Your task to perform on an android device: change keyboard looks Image 0: 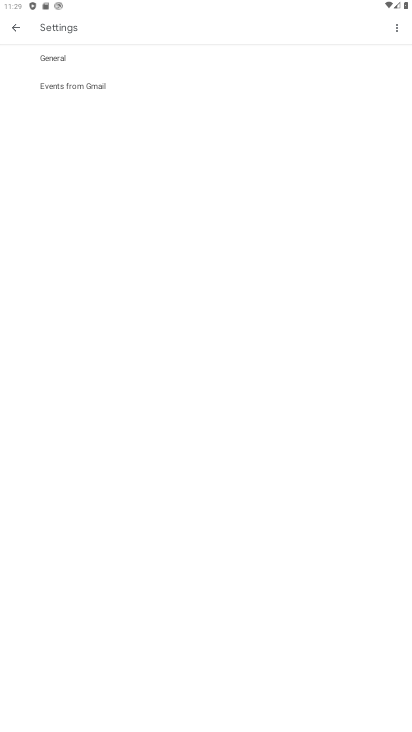
Step 0: drag from (212, 458) to (163, 224)
Your task to perform on an android device: change keyboard looks Image 1: 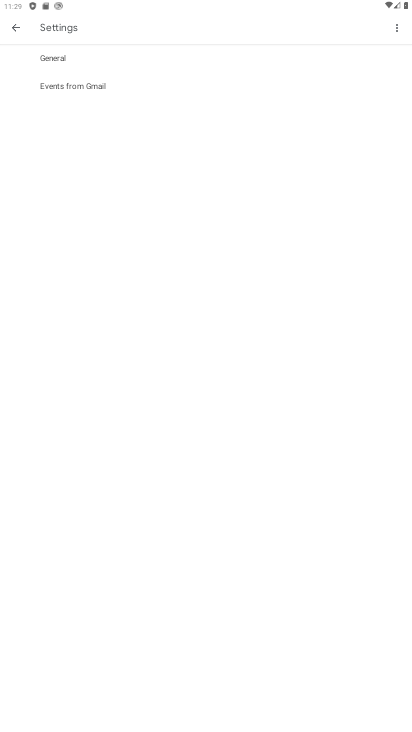
Step 1: press home button
Your task to perform on an android device: change keyboard looks Image 2: 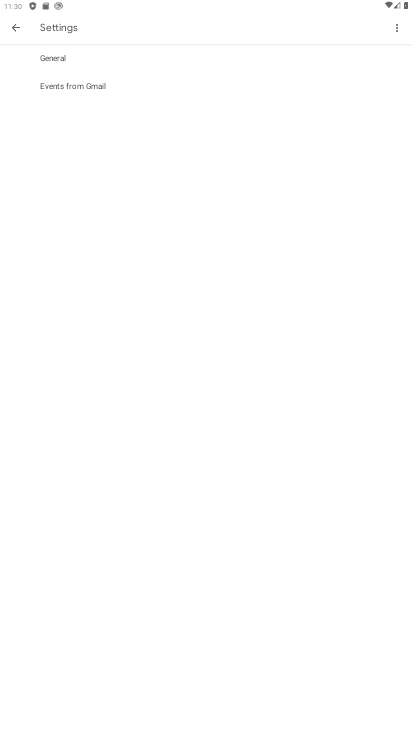
Step 2: press home button
Your task to perform on an android device: change keyboard looks Image 3: 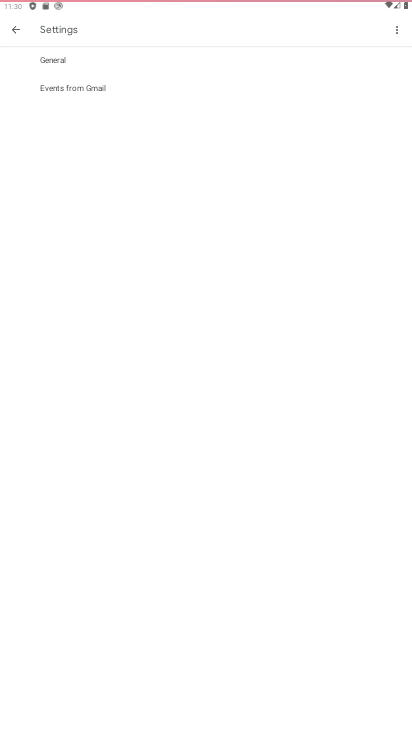
Step 3: drag from (218, 417) to (165, 2)
Your task to perform on an android device: change keyboard looks Image 4: 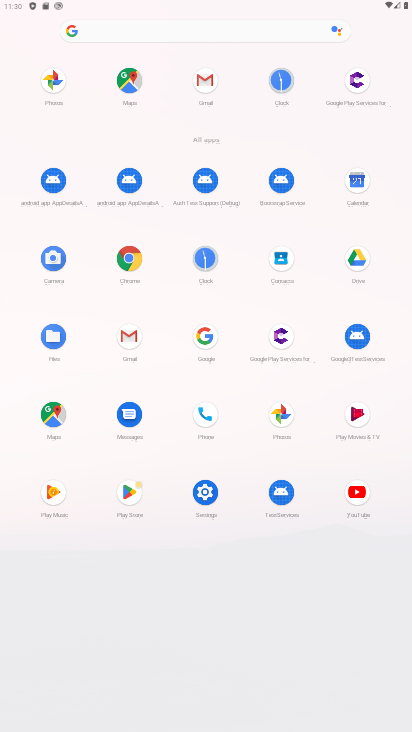
Step 4: click (204, 487)
Your task to perform on an android device: change keyboard looks Image 5: 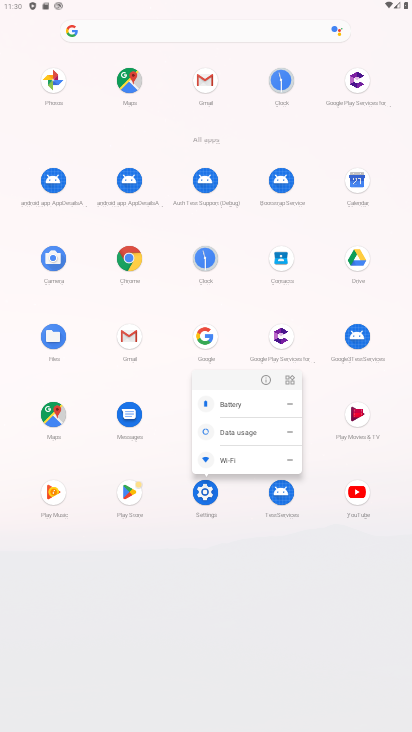
Step 5: click (263, 376)
Your task to perform on an android device: change keyboard looks Image 6: 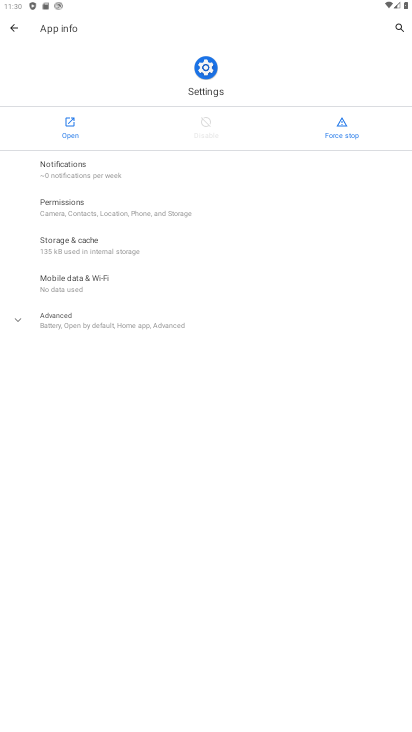
Step 6: click (65, 121)
Your task to perform on an android device: change keyboard looks Image 7: 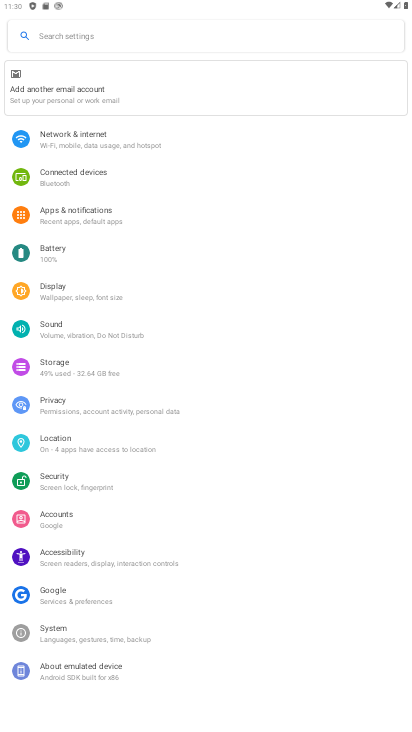
Step 7: click (63, 633)
Your task to perform on an android device: change keyboard looks Image 8: 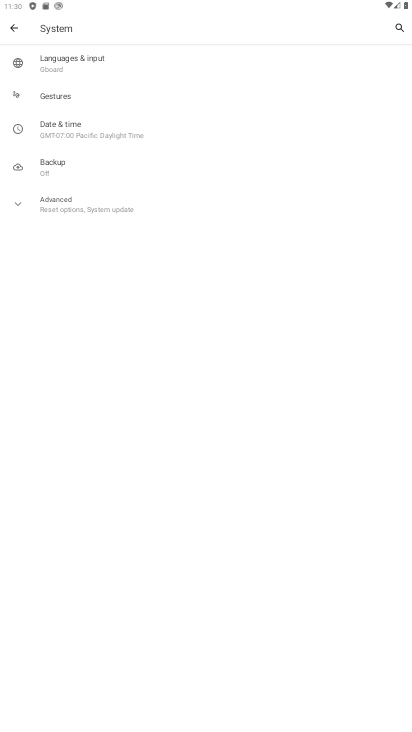
Step 8: click (75, 68)
Your task to perform on an android device: change keyboard looks Image 9: 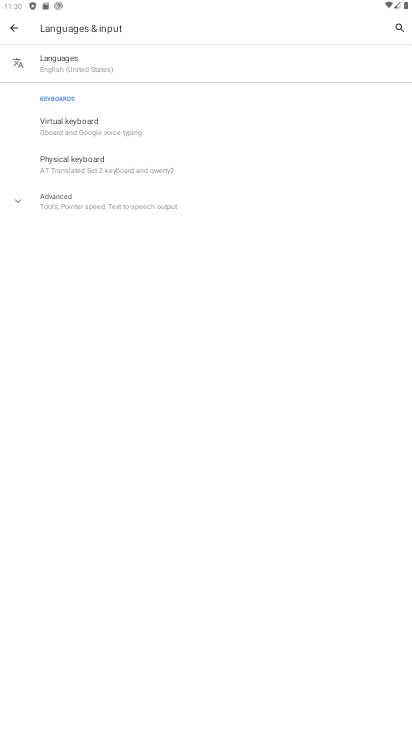
Step 9: click (83, 118)
Your task to perform on an android device: change keyboard looks Image 10: 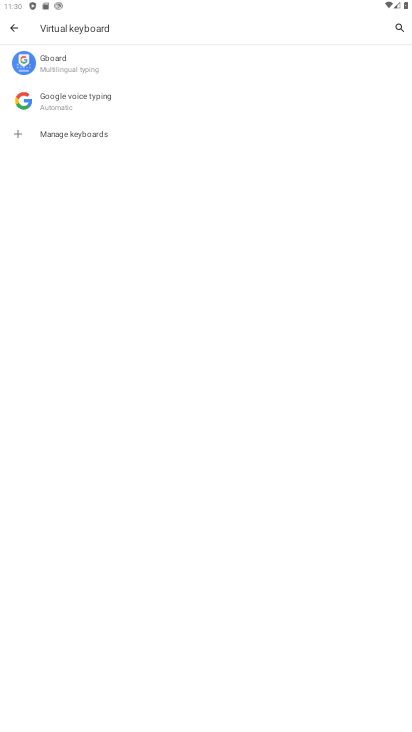
Step 10: drag from (193, 317) to (229, 77)
Your task to perform on an android device: change keyboard looks Image 11: 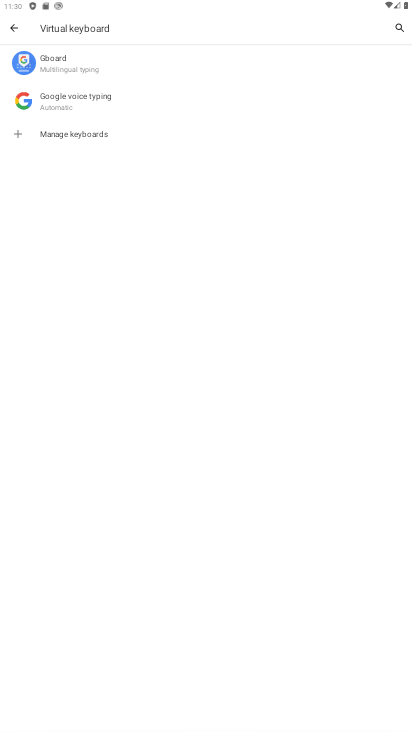
Step 11: click (85, 54)
Your task to perform on an android device: change keyboard looks Image 12: 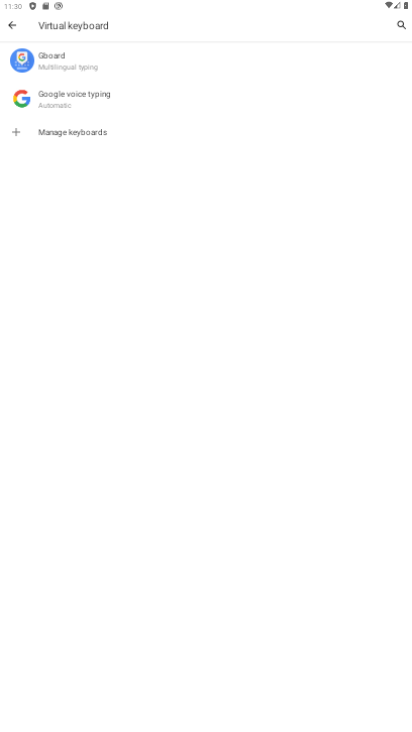
Step 12: drag from (192, 384) to (238, 84)
Your task to perform on an android device: change keyboard looks Image 13: 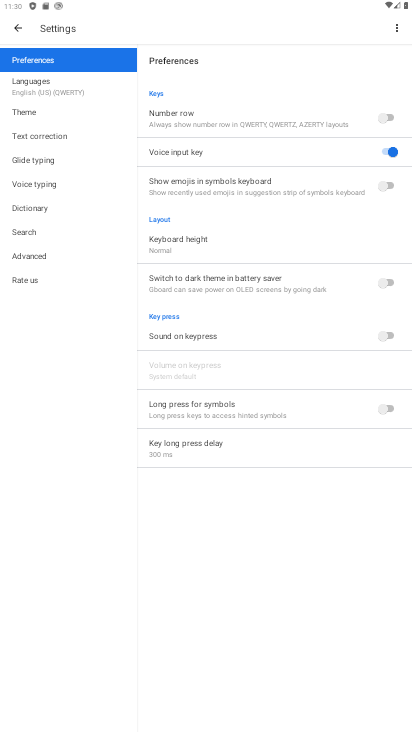
Step 13: drag from (267, 421) to (284, 169)
Your task to perform on an android device: change keyboard looks Image 14: 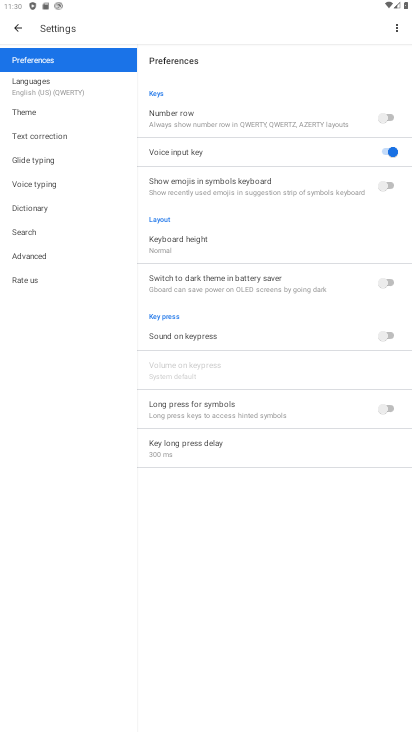
Step 14: drag from (246, 564) to (273, 231)
Your task to perform on an android device: change keyboard looks Image 15: 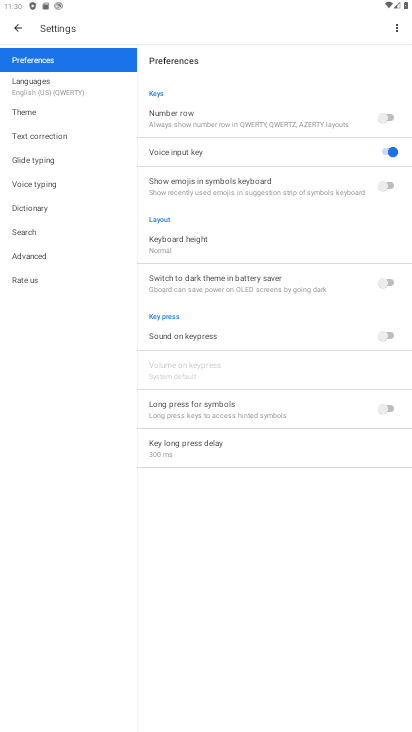
Step 15: click (23, 111)
Your task to perform on an android device: change keyboard looks Image 16: 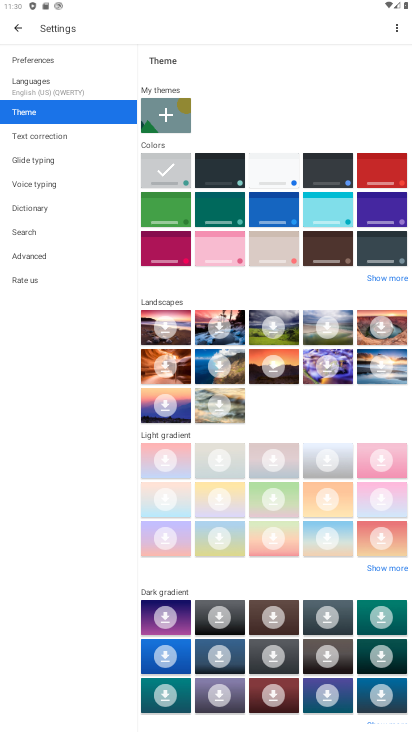
Step 16: click (222, 155)
Your task to perform on an android device: change keyboard looks Image 17: 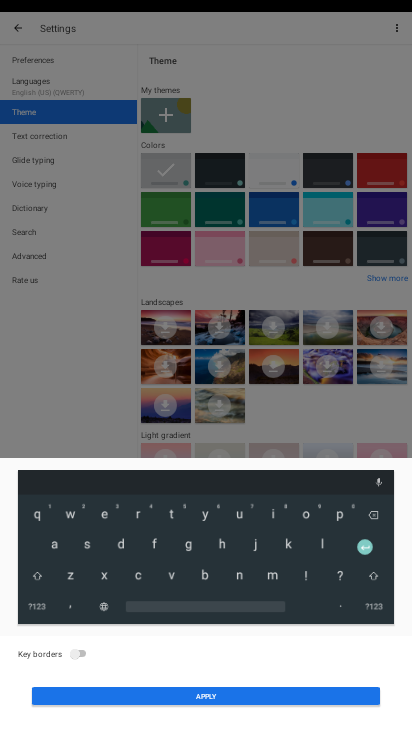
Step 17: click (211, 693)
Your task to perform on an android device: change keyboard looks Image 18: 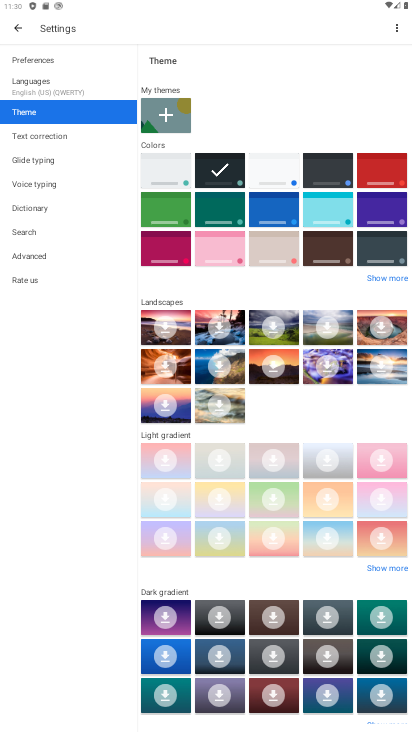
Step 18: task complete